Your task to perform on an android device: Open Amazon Image 0: 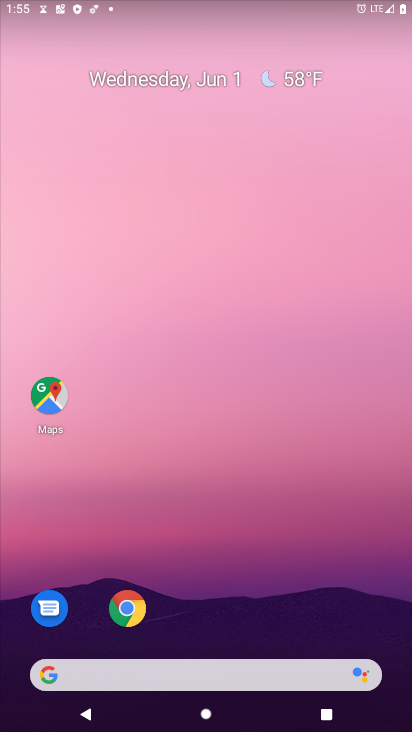
Step 0: click (119, 617)
Your task to perform on an android device: Open Amazon Image 1: 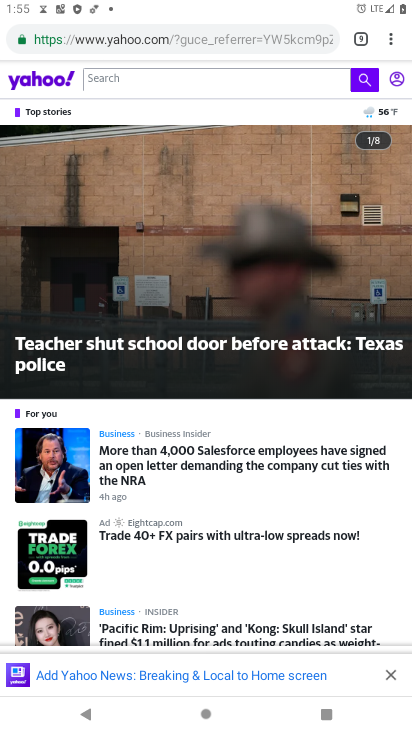
Step 1: click (371, 40)
Your task to perform on an android device: Open Amazon Image 2: 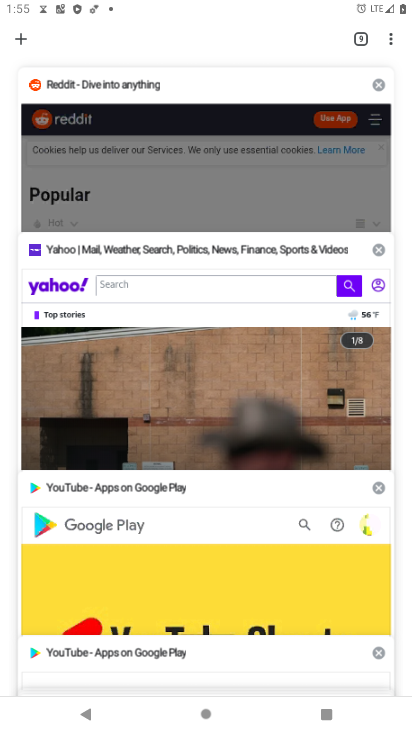
Step 2: drag from (302, 106) to (307, 512)
Your task to perform on an android device: Open Amazon Image 3: 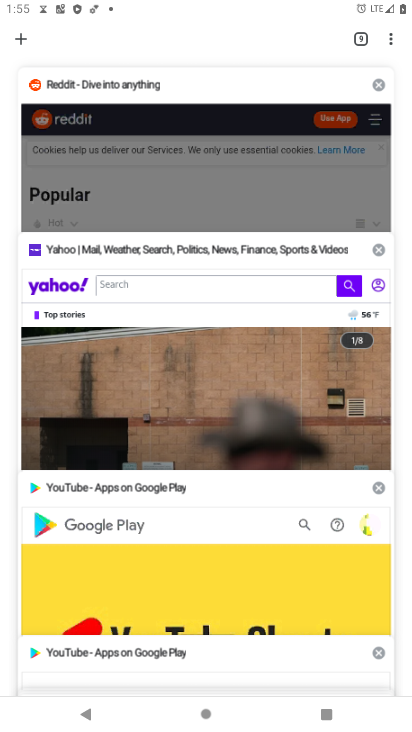
Step 3: drag from (303, 537) to (315, 155)
Your task to perform on an android device: Open Amazon Image 4: 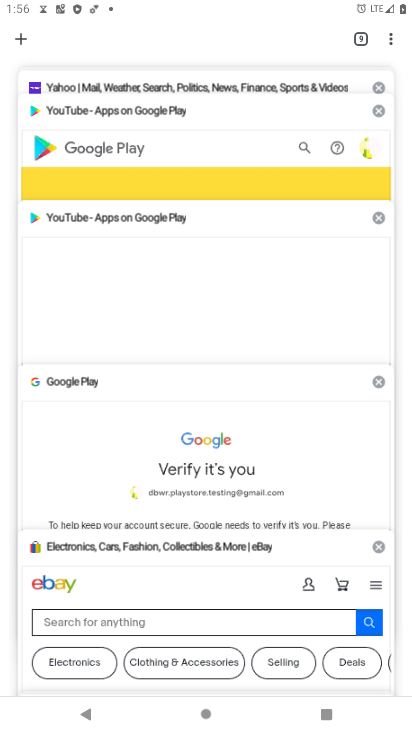
Step 4: click (224, 504)
Your task to perform on an android device: Open Amazon Image 5: 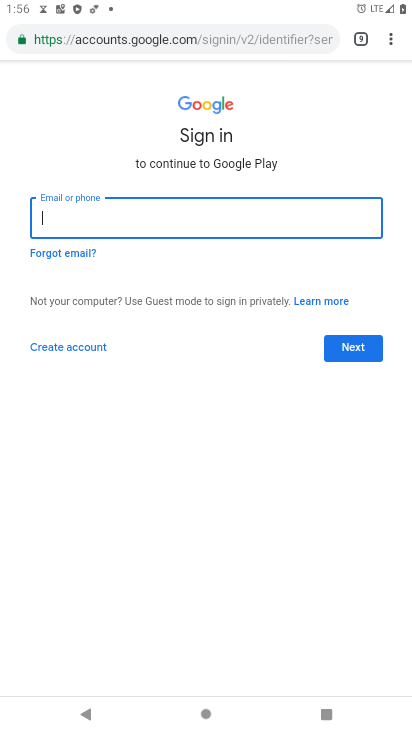
Step 5: click (352, 35)
Your task to perform on an android device: Open Amazon Image 6: 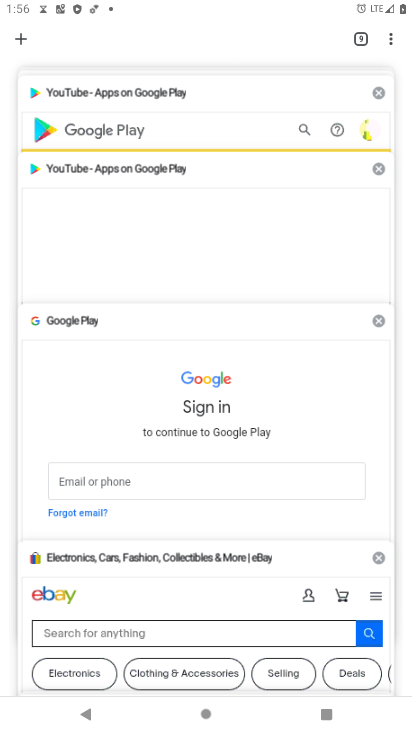
Step 6: drag from (183, 113) to (206, 533)
Your task to perform on an android device: Open Amazon Image 7: 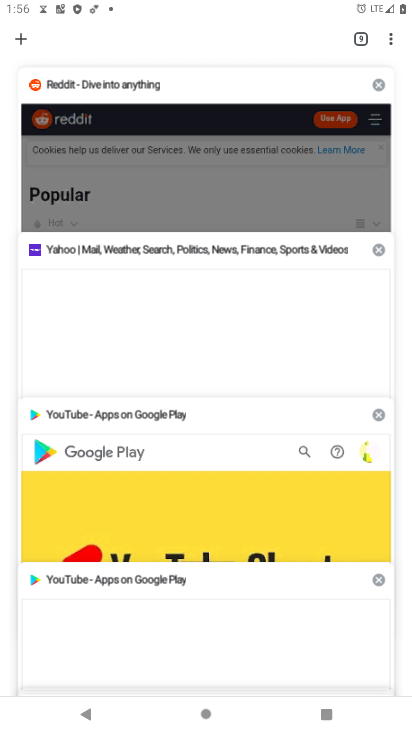
Step 7: drag from (255, 172) to (291, 494)
Your task to perform on an android device: Open Amazon Image 8: 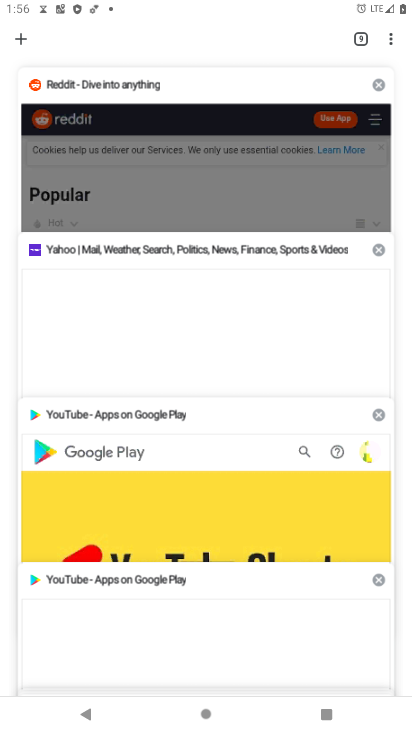
Step 8: drag from (118, 458) to (124, 160)
Your task to perform on an android device: Open Amazon Image 9: 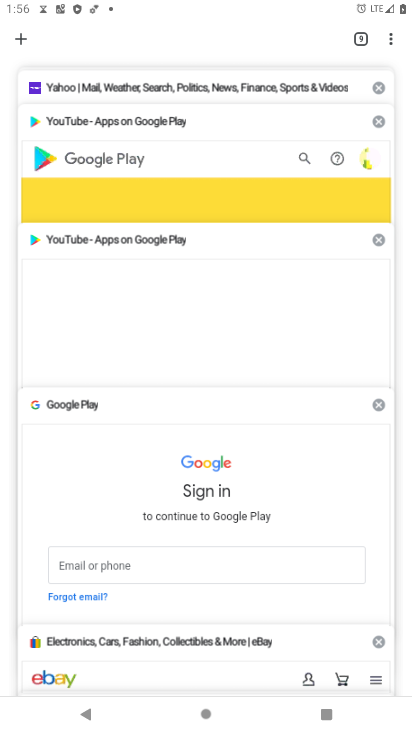
Step 9: drag from (177, 576) to (249, 236)
Your task to perform on an android device: Open Amazon Image 10: 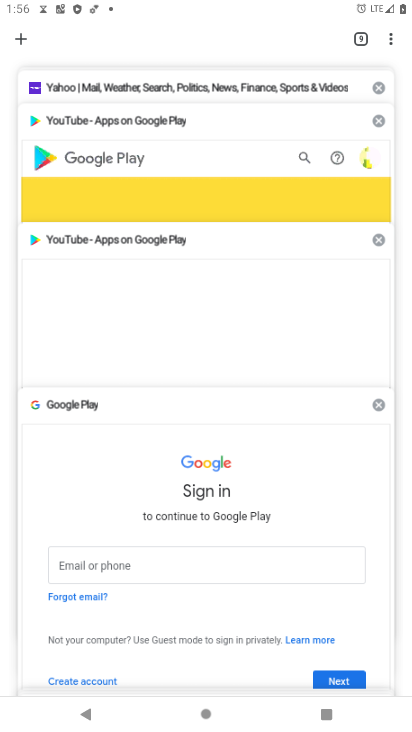
Step 10: click (25, 37)
Your task to perform on an android device: Open Amazon Image 11: 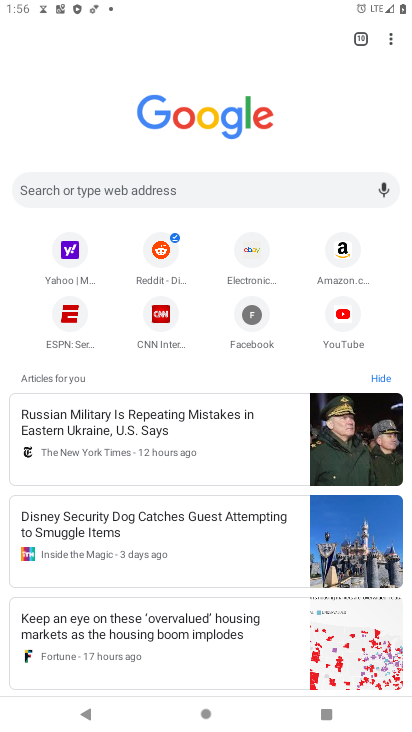
Step 11: click (338, 260)
Your task to perform on an android device: Open Amazon Image 12: 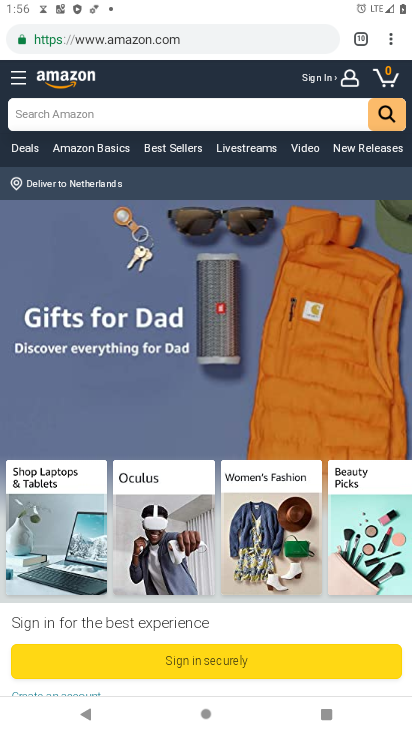
Step 12: task complete